Your task to perform on an android device: find snoozed emails in the gmail app Image 0: 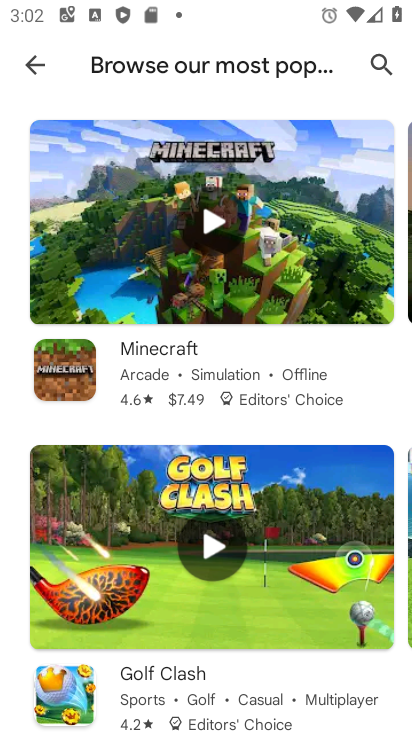
Step 0: drag from (253, 618) to (302, 179)
Your task to perform on an android device: find snoozed emails in the gmail app Image 1: 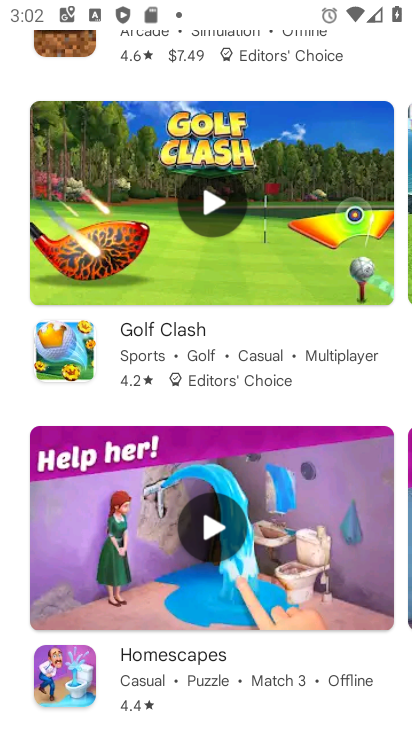
Step 1: drag from (308, 596) to (368, 180)
Your task to perform on an android device: find snoozed emails in the gmail app Image 2: 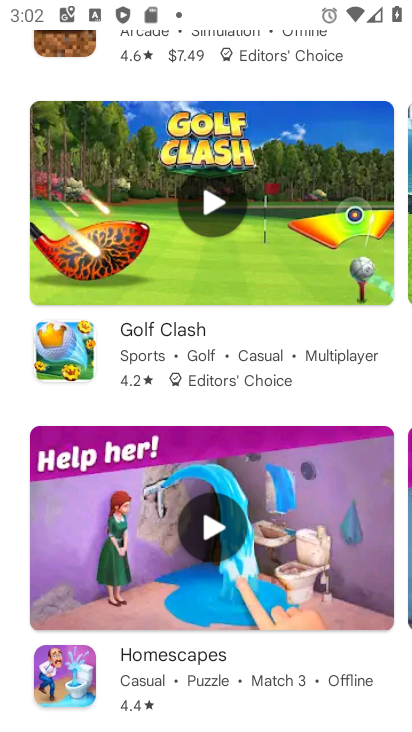
Step 2: drag from (288, 233) to (294, 590)
Your task to perform on an android device: find snoozed emails in the gmail app Image 3: 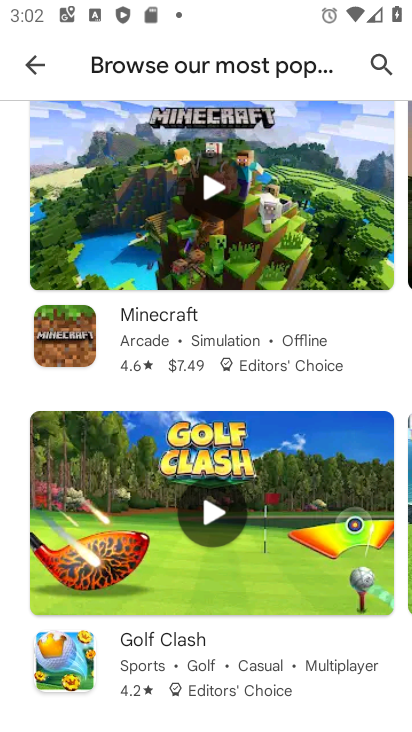
Step 3: click (23, 63)
Your task to perform on an android device: find snoozed emails in the gmail app Image 4: 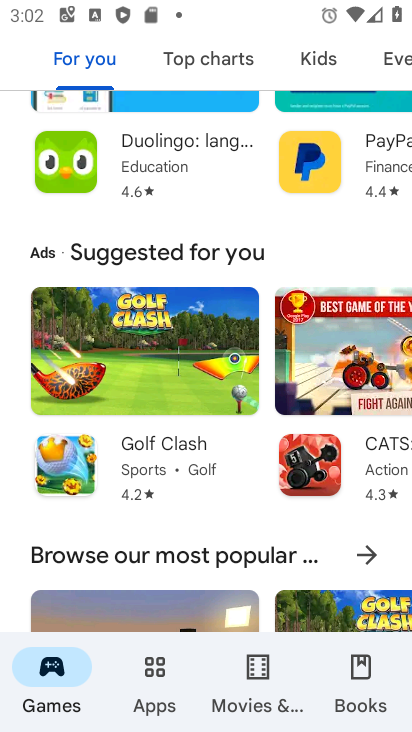
Step 4: press home button
Your task to perform on an android device: find snoozed emails in the gmail app Image 5: 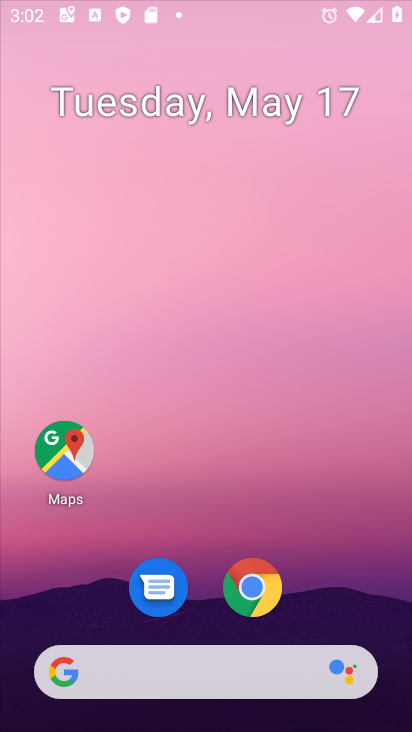
Step 5: drag from (201, 640) to (363, 38)
Your task to perform on an android device: find snoozed emails in the gmail app Image 6: 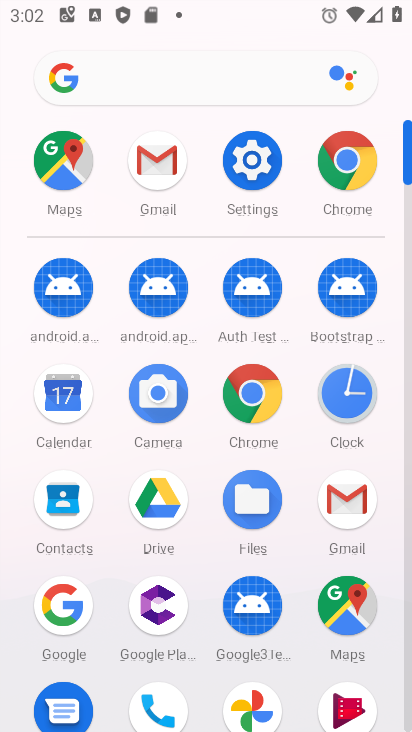
Step 6: click (357, 492)
Your task to perform on an android device: find snoozed emails in the gmail app Image 7: 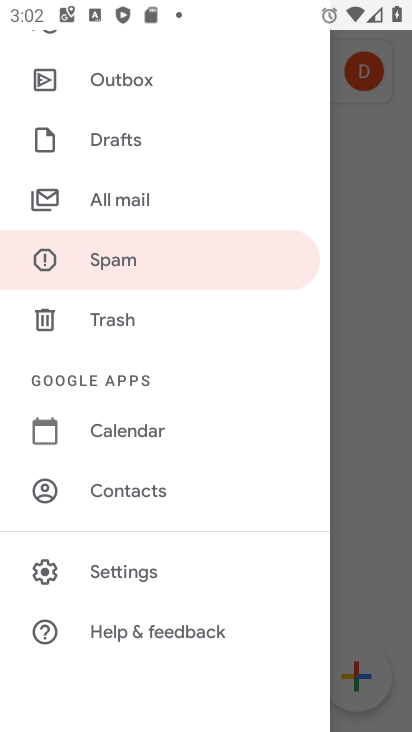
Step 7: drag from (189, 611) to (188, 157)
Your task to perform on an android device: find snoozed emails in the gmail app Image 8: 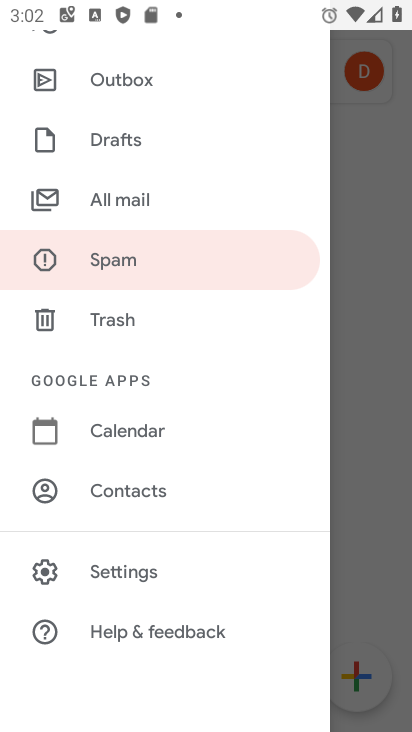
Step 8: drag from (139, 100) to (174, 442)
Your task to perform on an android device: find snoozed emails in the gmail app Image 9: 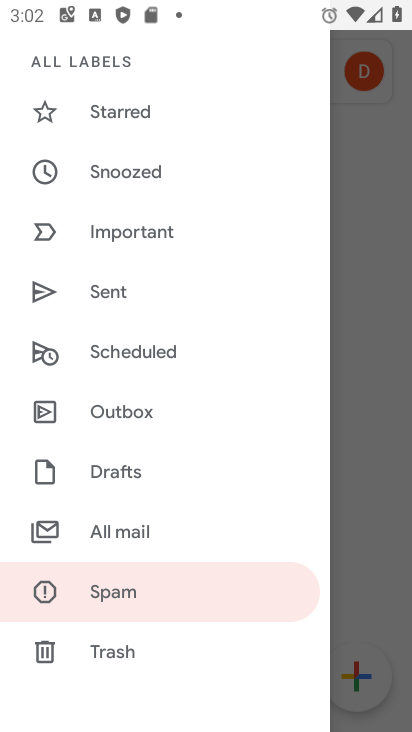
Step 9: click (135, 182)
Your task to perform on an android device: find snoozed emails in the gmail app Image 10: 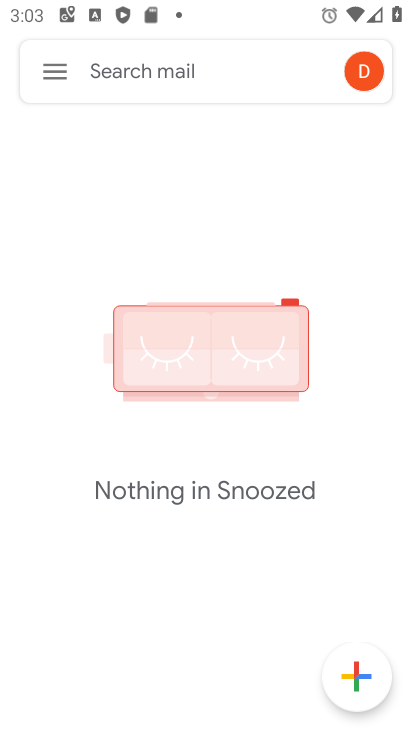
Step 10: click (65, 81)
Your task to perform on an android device: find snoozed emails in the gmail app Image 11: 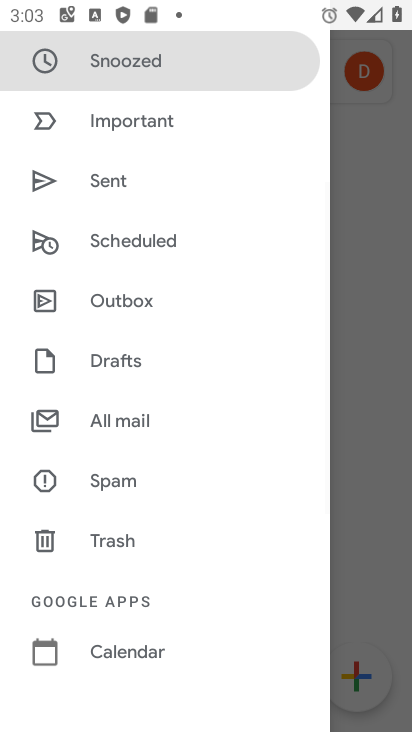
Step 11: click (115, 58)
Your task to perform on an android device: find snoozed emails in the gmail app Image 12: 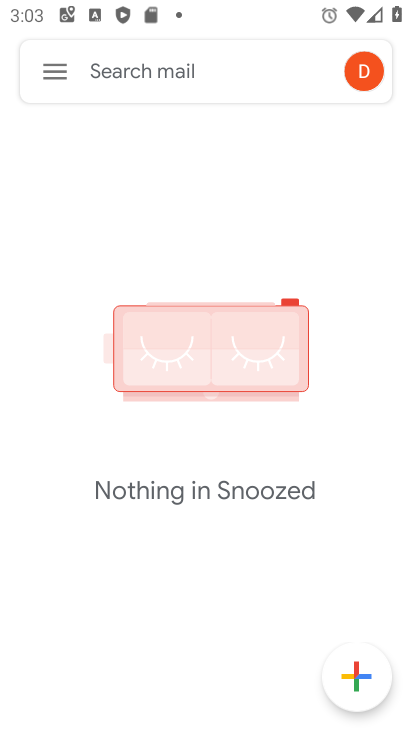
Step 12: task complete